Your task to perform on an android device: change the upload size in google photos Image 0: 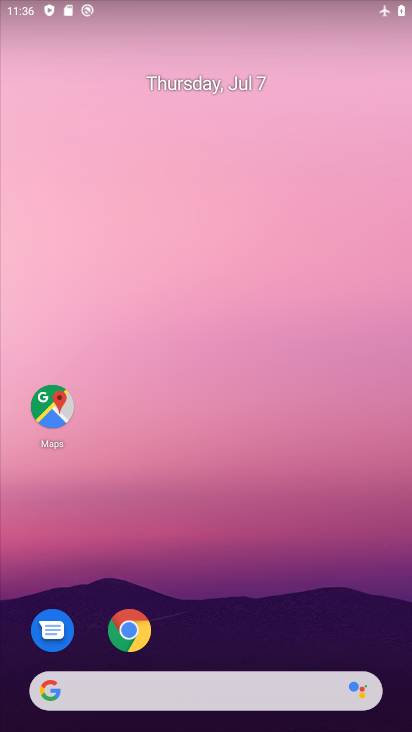
Step 0: drag from (394, 685) to (257, 0)
Your task to perform on an android device: change the upload size in google photos Image 1: 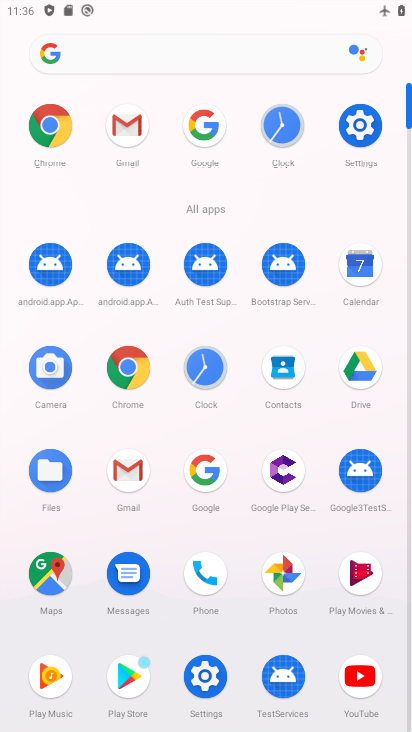
Step 1: click (285, 580)
Your task to perform on an android device: change the upload size in google photos Image 2: 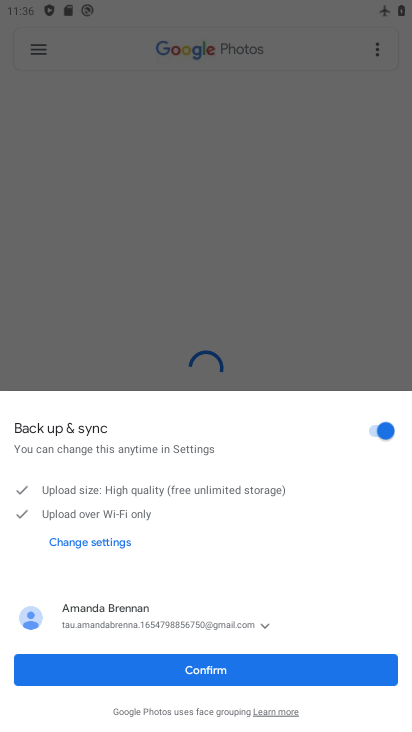
Step 2: click (205, 669)
Your task to perform on an android device: change the upload size in google photos Image 3: 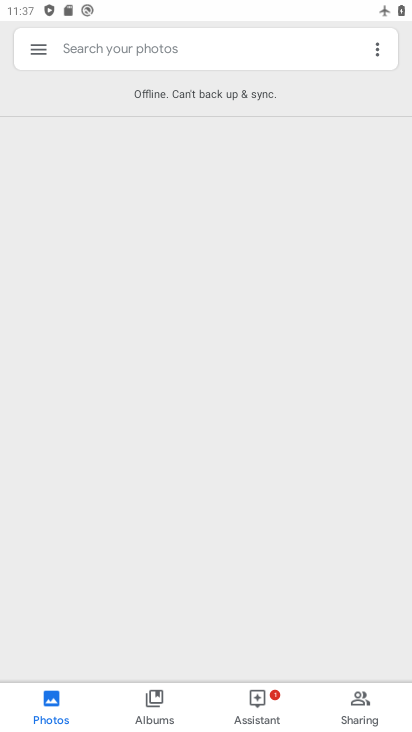
Step 3: click (43, 52)
Your task to perform on an android device: change the upload size in google photos Image 4: 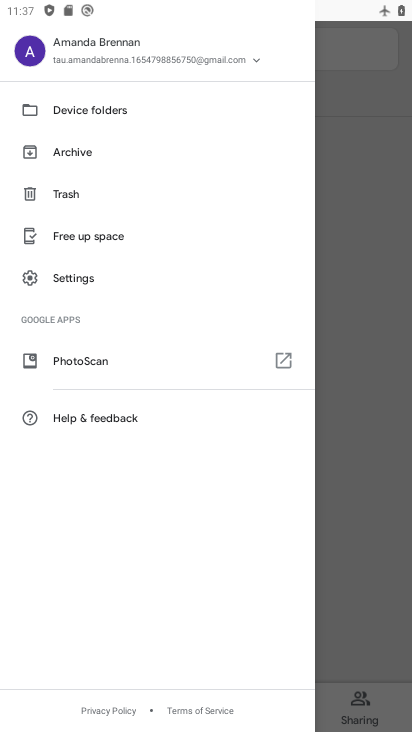
Step 4: click (74, 287)
Your task to perform on an android device: change the upload size in google photos Image 5: 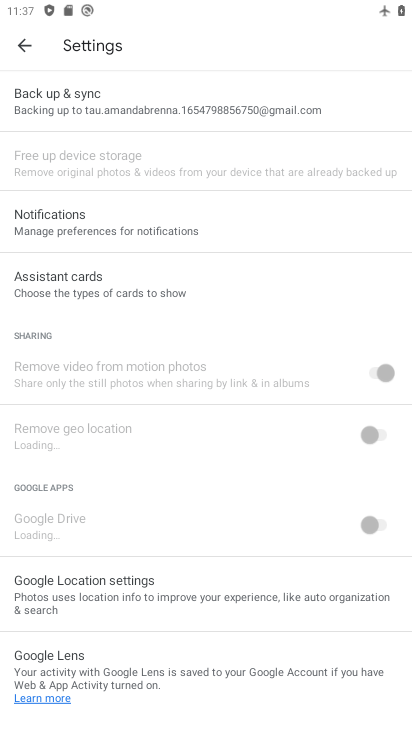
Step 5: task complete